Your task to perform on an android device: Open calendar and show me the third week of next month Image 0: 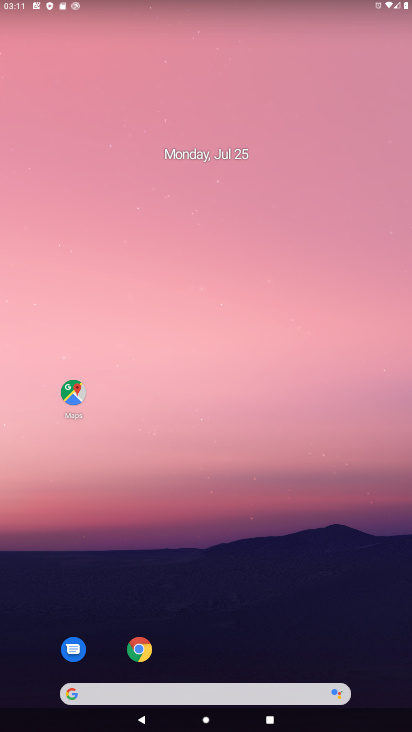
Step 0: drag from (383, 668) to (352, 194)
Your task to perform on an android device: Open calendar and show me the third week of next month Image 1: 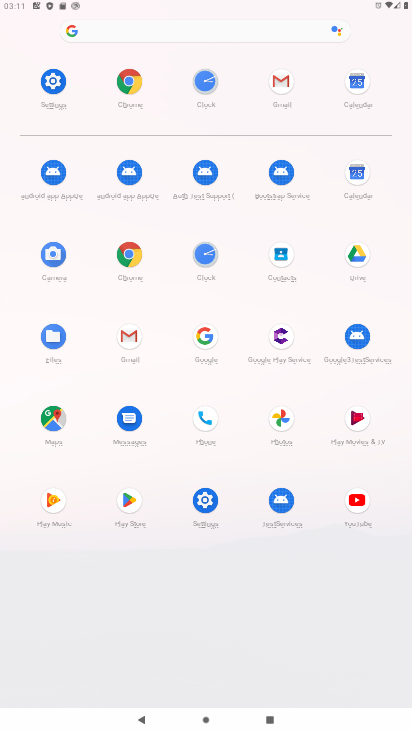
Step 1: click (355, 172)
Your task to perform on an android device: Open calendar and show me the third week of next month Image 2: 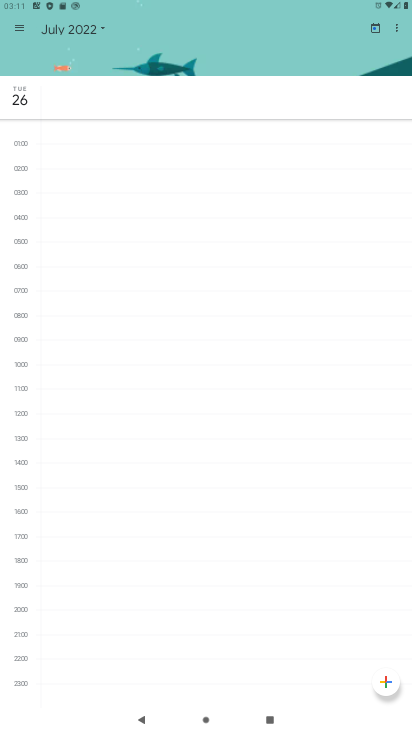
Step 2: click (19, 35)
Your task to perform on an android device: Open calendar and show me the third week of next month Image 3: 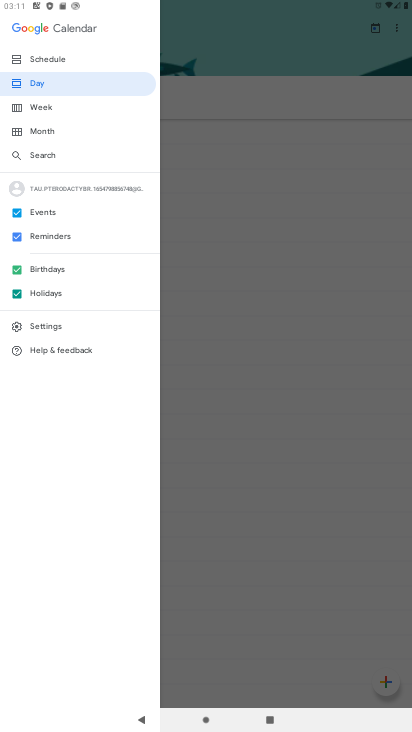
Step 3: click (36, 104)
Your task to perform on an android device: Open calendar and show me the third week of next month Image 4: 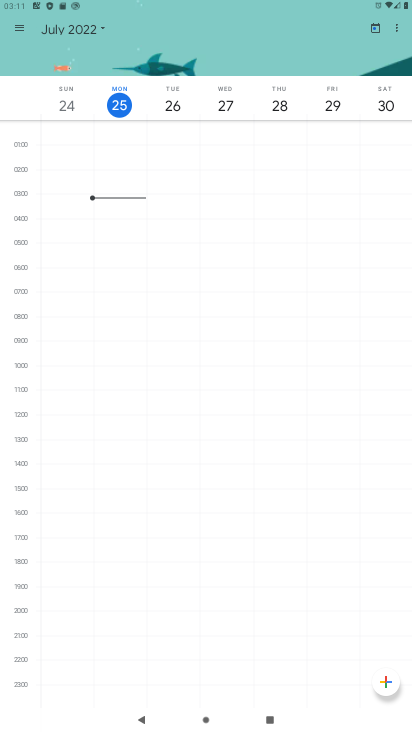
Step 4: click (98, 24)
Your task to perform on an android device: Open calendar and show me the third week of next month Image 5: 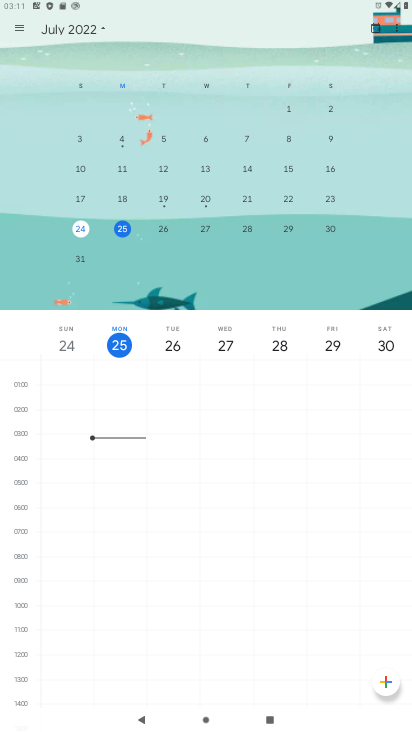
Step 5: drag from (336, 179) to (39, 147)
Your task to perform on an android device: Open calendar and show me the third week of next month Image 6: 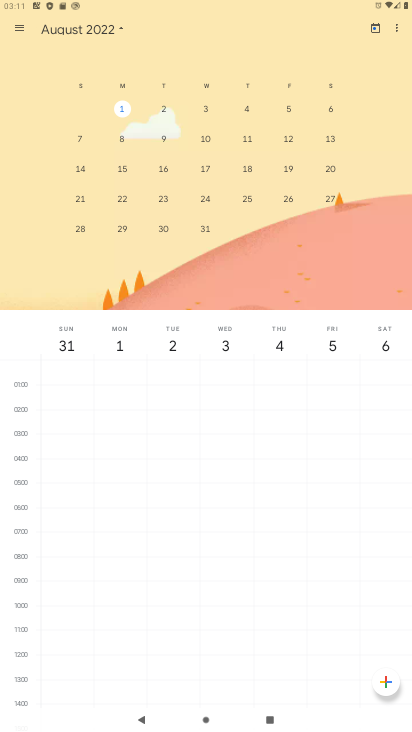
Step 6: click (77, 199)
Your task to perform on an android device: Open calendar and show me the third week of next month Image 7: 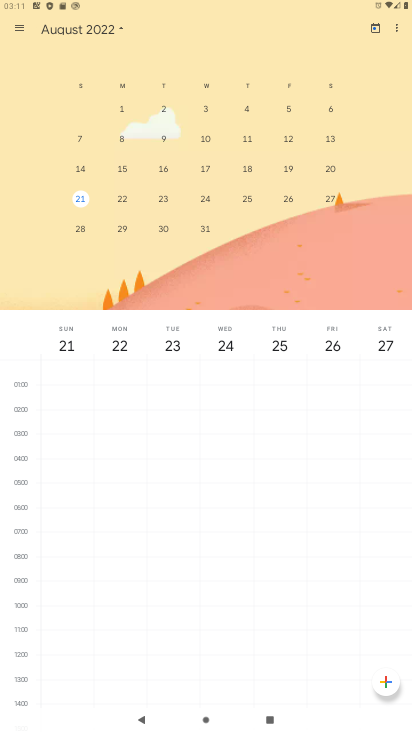
Step 7: task complete